Your task to perform on an android device: Open Chrome and go to settings Image 0: 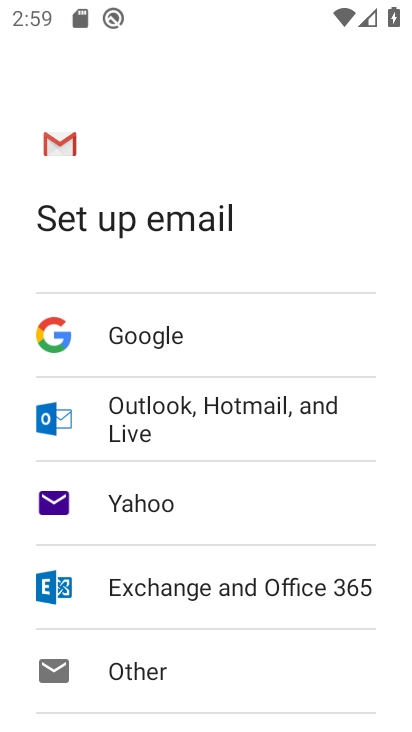
Step 0: press home button
Your task to perform on an android device: Open Chrome and go to settings Image 1: 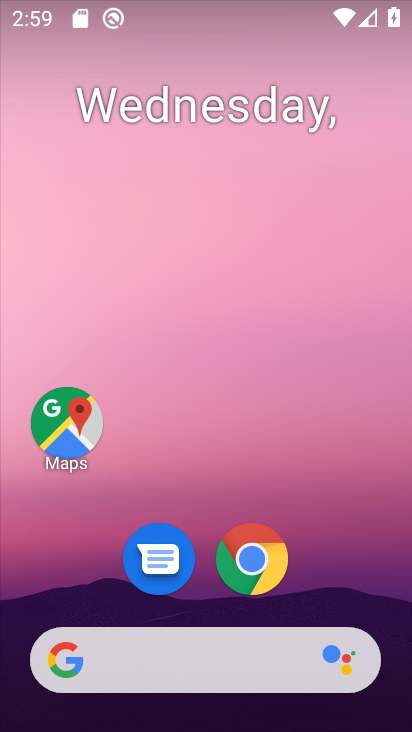
Step 1: click (257, 557)
Your task to perform on an android device: Open Chrome and go to settings Image 2: 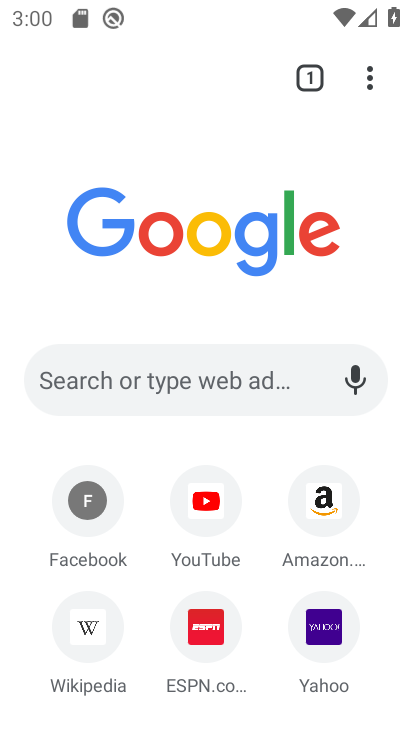
Step 2: click (369, 88)
Your task to perform on an android device: Open Chrome and go to settings Image 3: 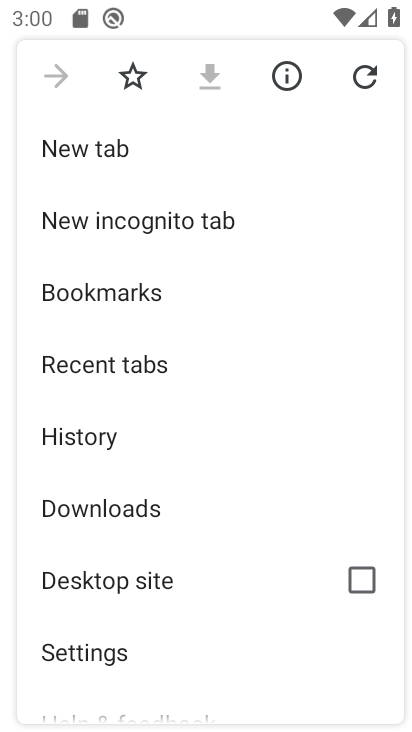
Step 3: click (96, 660)
Your task to perform on an android device: Open Chrome and go to settings Image 4: 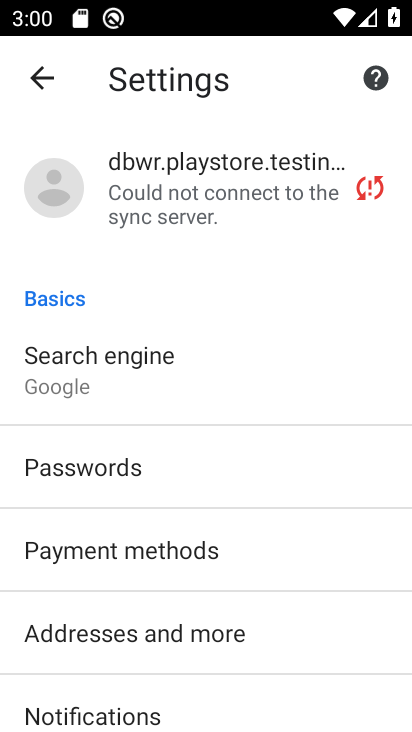
Step 4: task complete